Your task to perform on an android device: turn notification dots on Image 0: 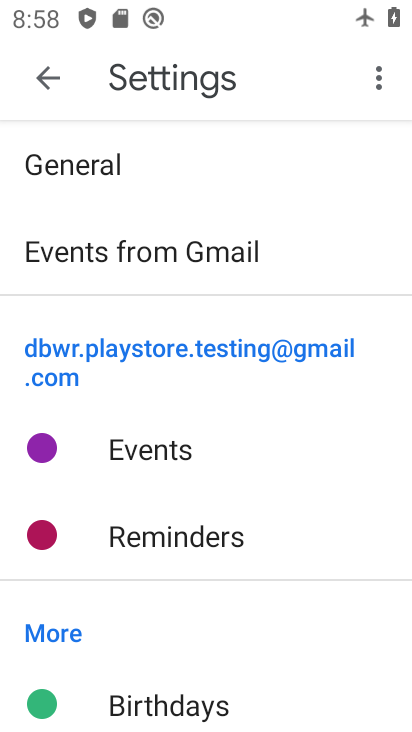
Step 0: press home button
Your task to perform on an android device: turn notification dots on Image 1: 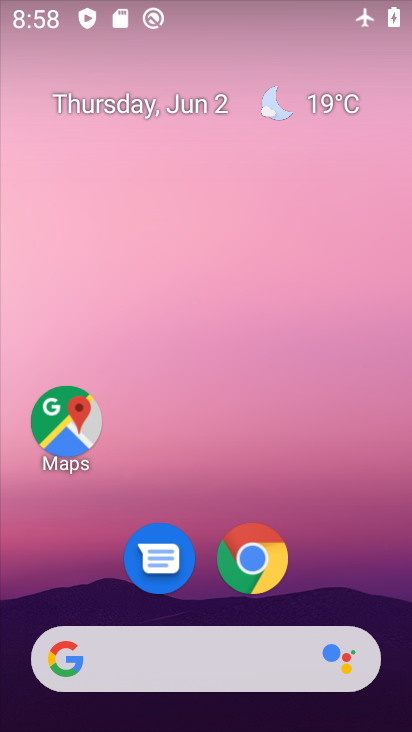
Step 1: drag from (380, 603) to (296, 35)
Your task to perform on an android device: turn notification dots on Image 2: 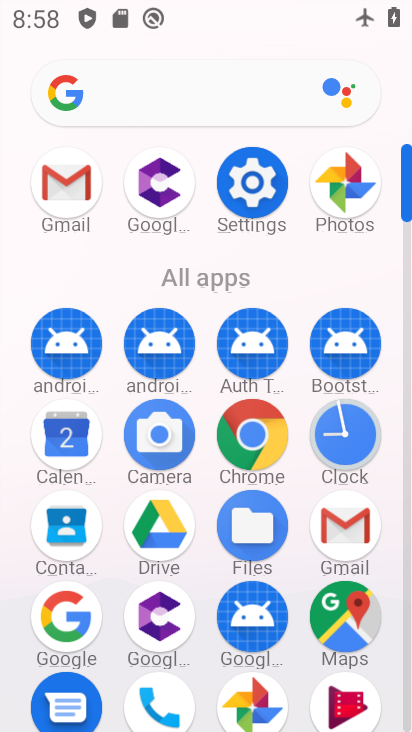
Step 2: click (405, 675)
Your task to perform on an android device: turn notification dots on Image 3: 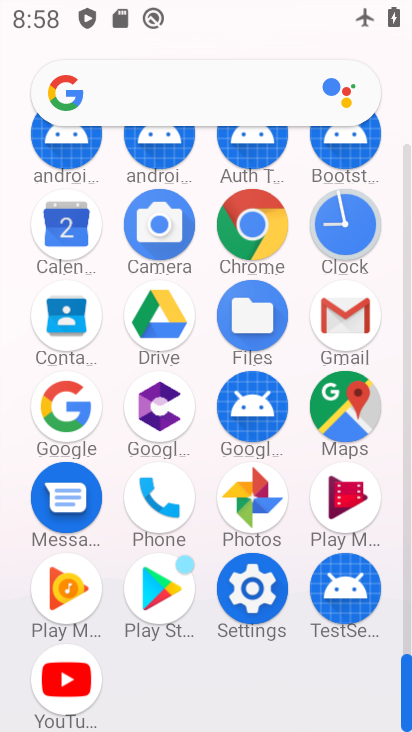
Step 3: click (254, 591)
Your task to perform on an android device: turn notification dots on Image 4: 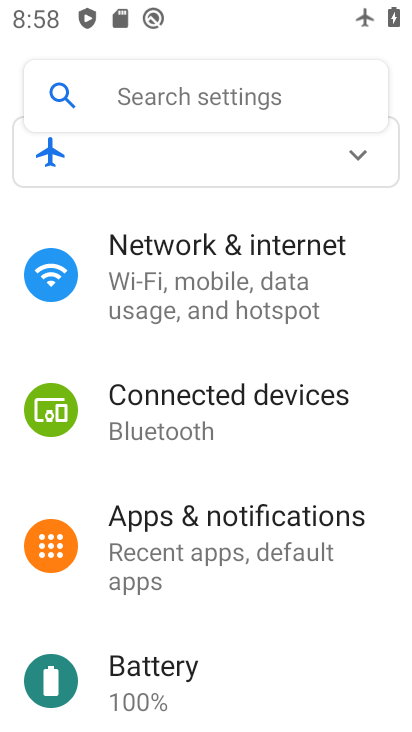
Step 4: click (209, 515)
Your task to perform on an android device: turn notification dots on Image 5: 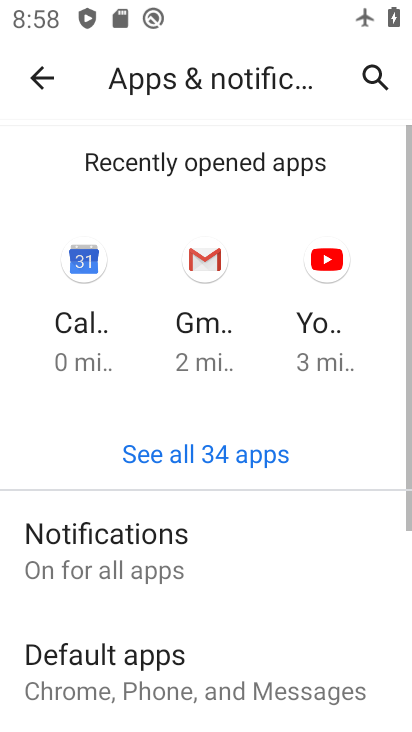
Step 5: click (121, 554)
Your task to perform on an android device: turn notification dots on Image 6: 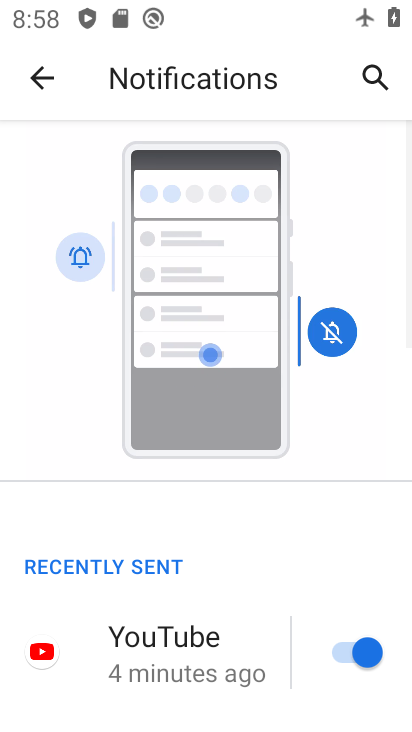
Step 6: drag from (291, 660) to (220, 156)
Your task to perform on an android device: turn notification dots on Image 7: 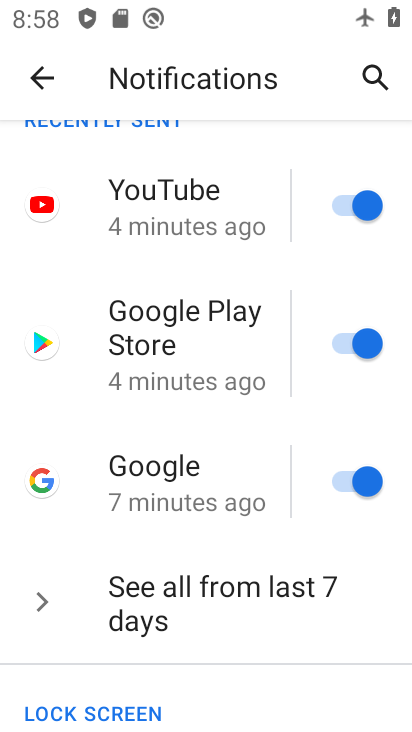
Step 7: drag from (280, 721) to (254, 223)
Your task to perform on an android device: turn notification dots on Image 8: 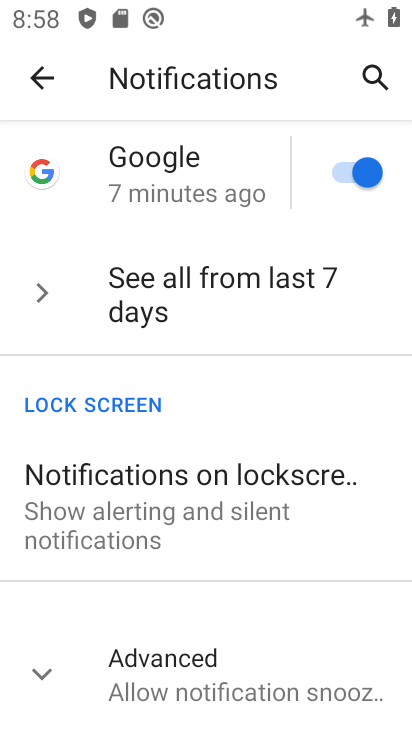
Step 8: click (35, 680)
Your task to perform on an android device: turn notification dots on Image 9: 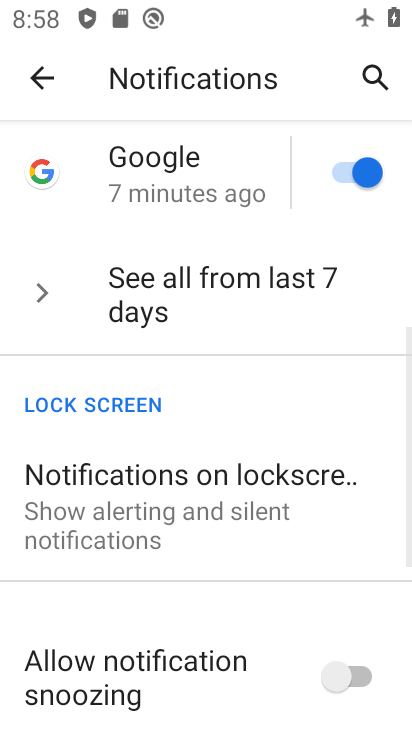
Step 9: task complete